Your task to perform on an android device: Do I have any events tomorrow? Image 0: 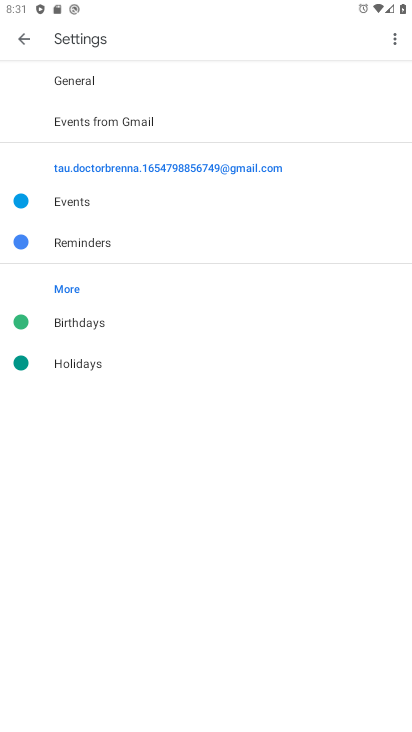
Step 0: press home button
Your task to perform on an android device: Do I have any events tomorrow? Image 1: 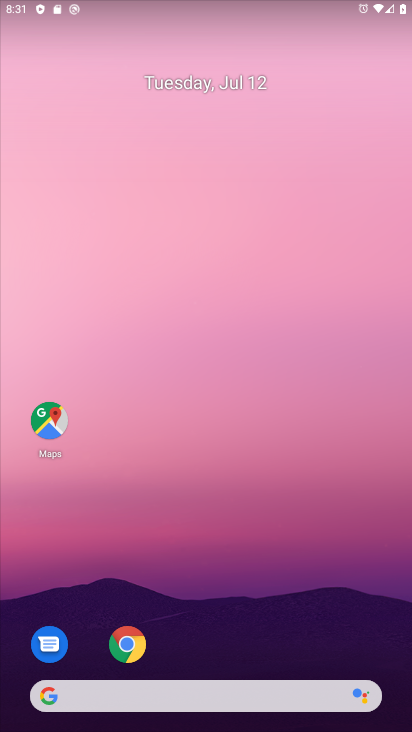
Step 1: drag from (19, 710) to (205, 267)
Your task to perform on an android device: Do I have any events tomorrow? Image 2: 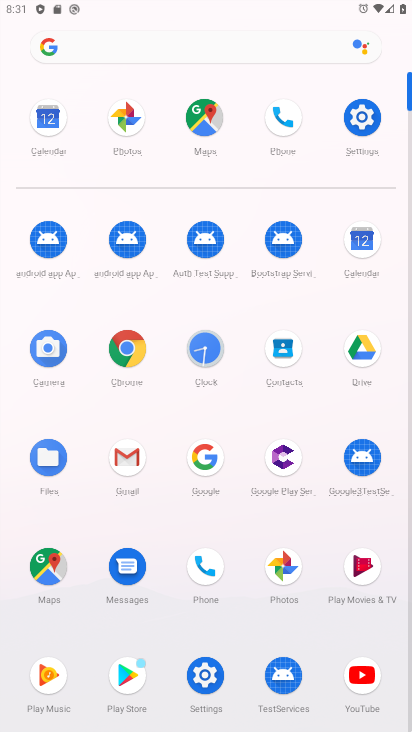
Step 2: click (362, 244)
Your task to perform on an android device: Do I have any events tomorrow? Image 3: 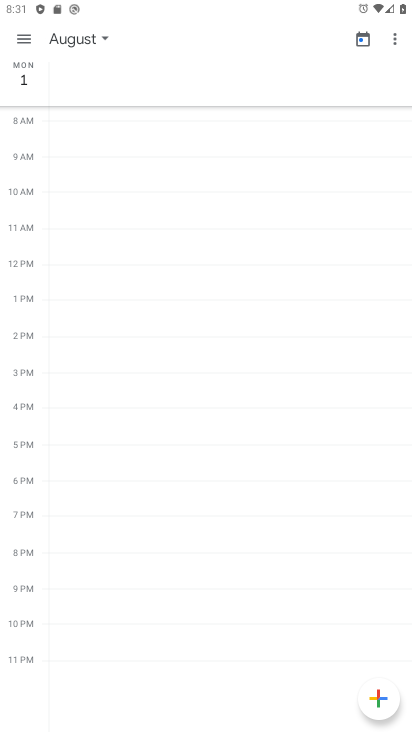
Step 3: click (34, 36)
Your task to perform on an android device: Do I have any events tomorrow? Image 4: 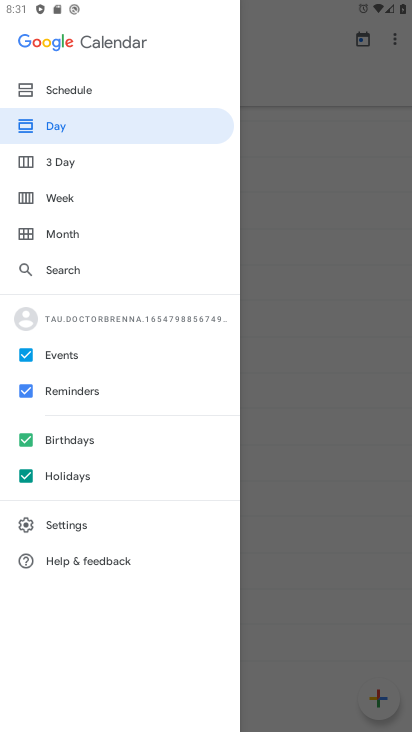
Step 4: click (74, 197)
Your task to perform on an android device: Do I have any events tomorrow? Image 5: 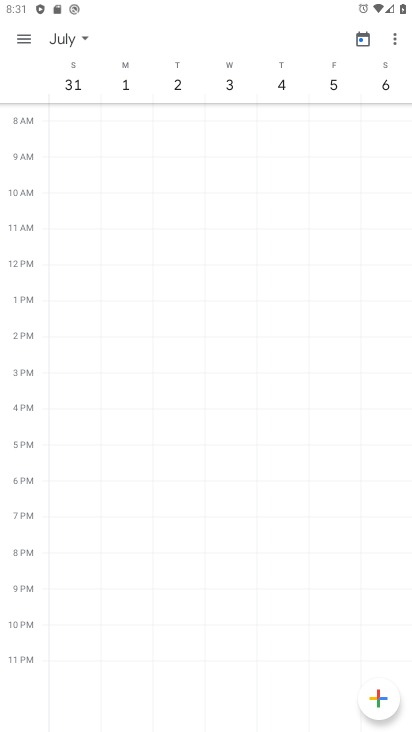
Step 5: click (27, 34)
Your task to perform on an android device: Do I have any events tomorrow? Image 6: 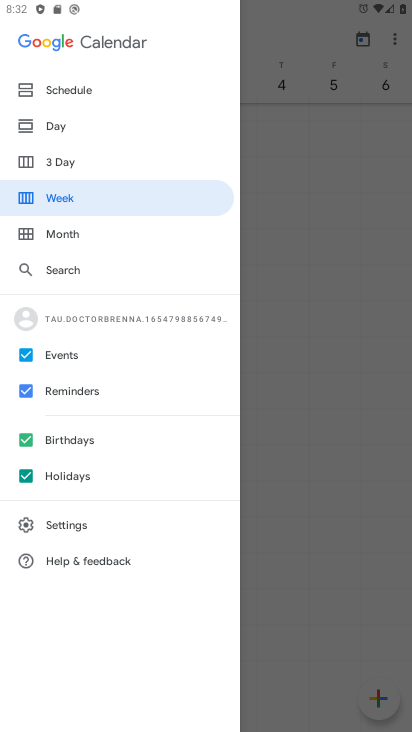
Step 6: click (67, 236)
Your task to perform on an android device: Do I have any events tomorrow? Image 7: 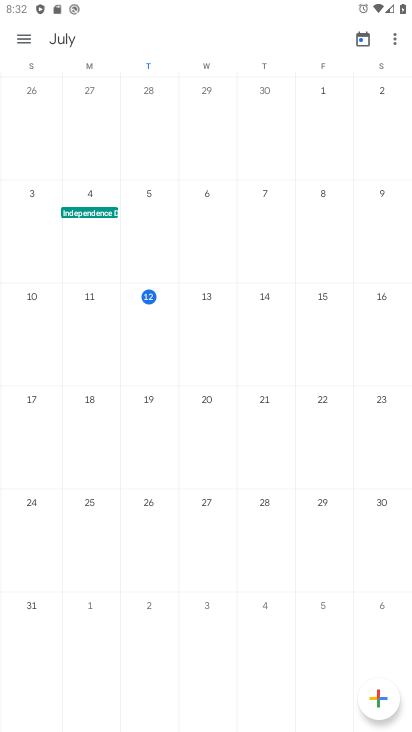
Step 7: task complete